Your task to perform on an android device: Open Android settings Image 0: 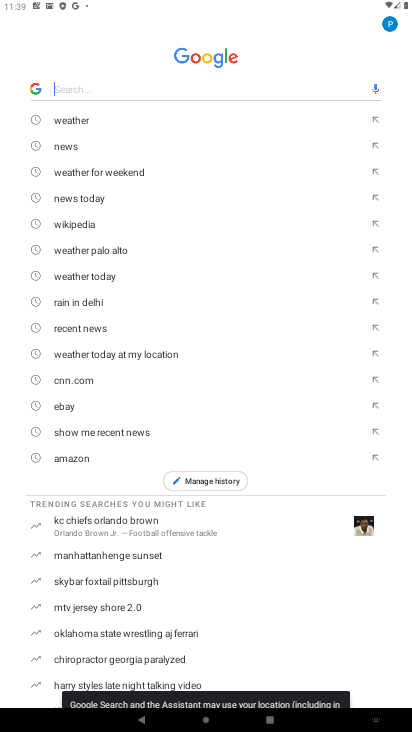
Step 0: press home button
Your task to perform on an android device: Open Android settings Image 1: 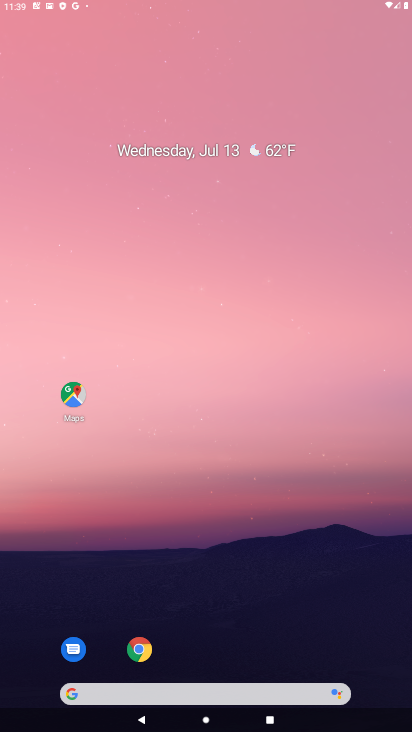
Step 1: drag from (392, 637) to (334, 102)
Your task to perform on an android device: Open Android settings Image 2: 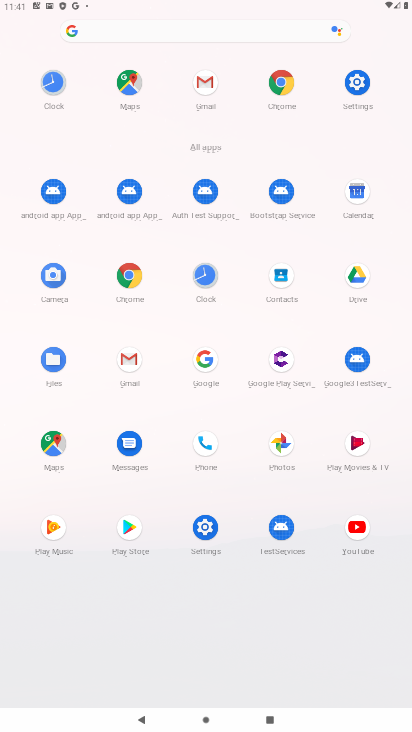
Step 2: click (203, 534)
Your task to perform on an android device: Open Android settings Image 3: 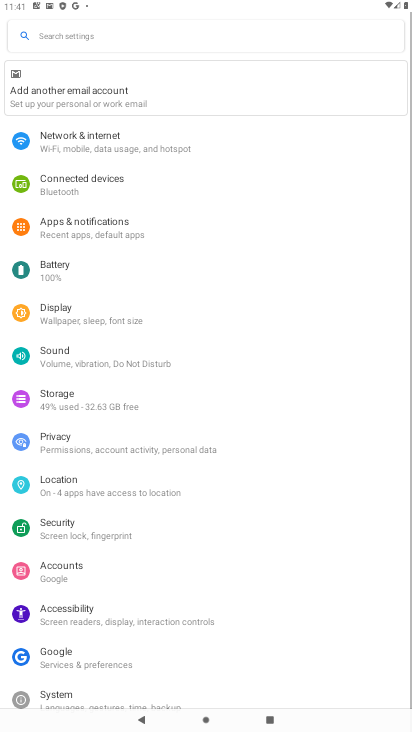
Step 3: task complete